Your task to perform on an android device: Check the news Image 0: 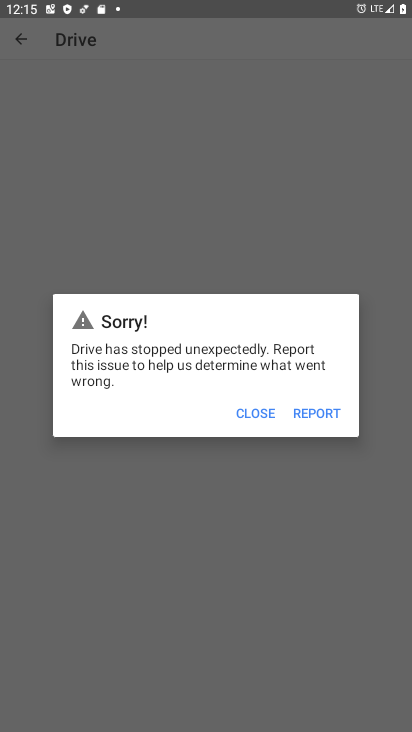
Step 0: press home button
Your task to perform on an android device: Check the news Image 1: 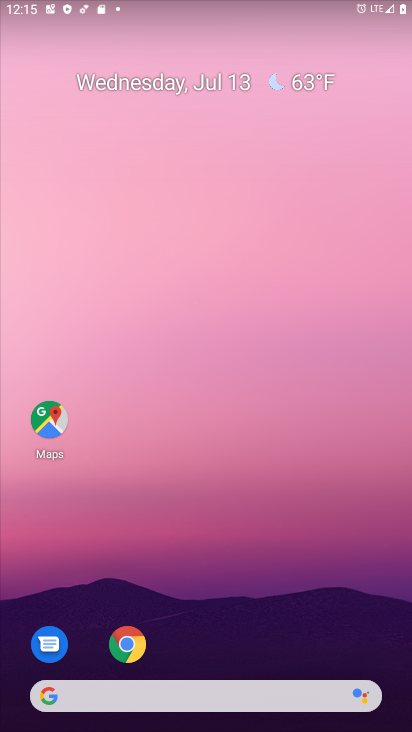
Step 1: drag from (178, 702) to (201, 227)
Your task to perform on an android device: Check the news Image 2: 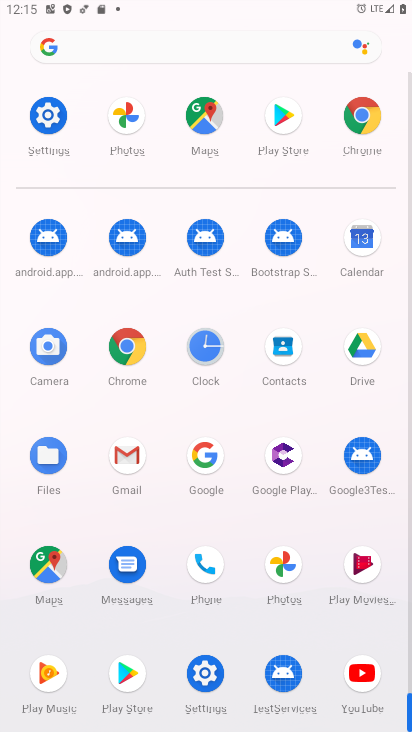
Step 2: click (203, 454)
Your task to perform on an android device: Check the news Image 3: 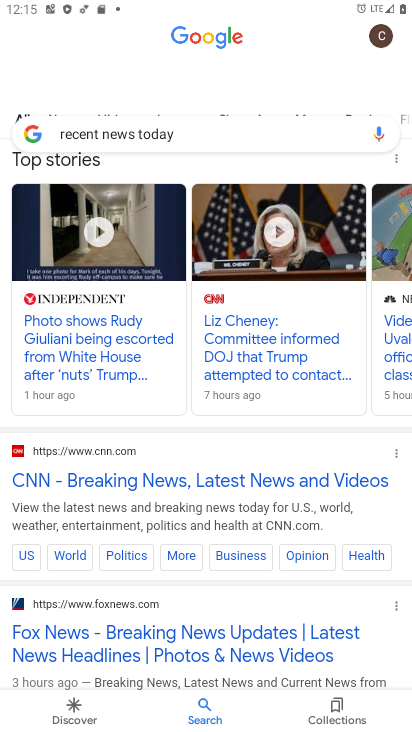
Step 3: click (284, 137)
Your task to perform on an android device: Check the news Image 4: 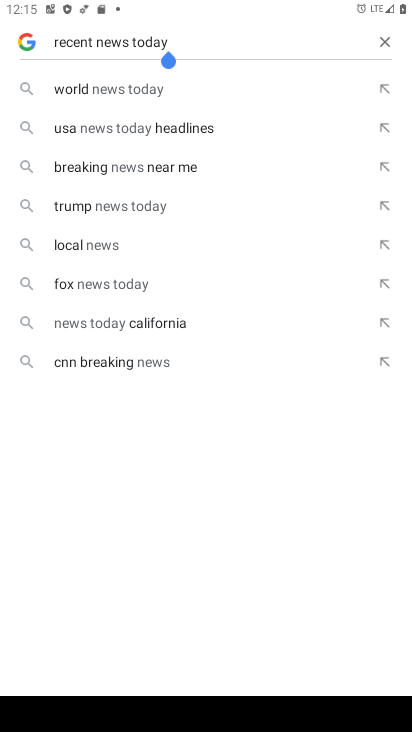
Step 4: click (389, 46)
Your task to perform on an android device: Check the news Image 5: 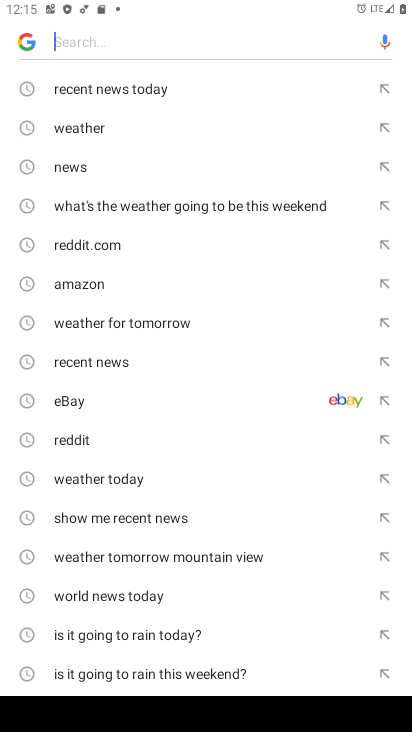
Step 5: type "news"
Your task to perform on an android device: Check the news Image 6: 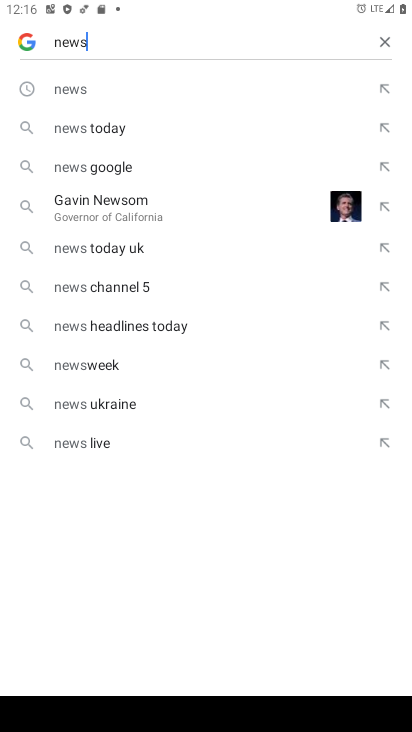
Step 6: click (86, 100)
Your task to perform on an android device: Check the news Image 7: 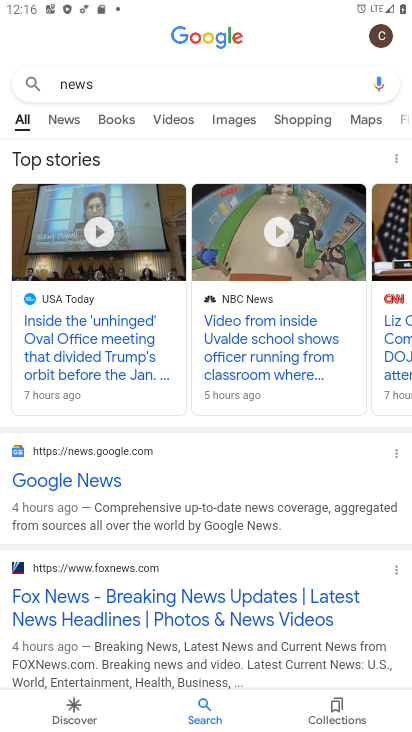
Step 7: click (117, 364)
Your task to perform on an android device: Check the news Image 8: 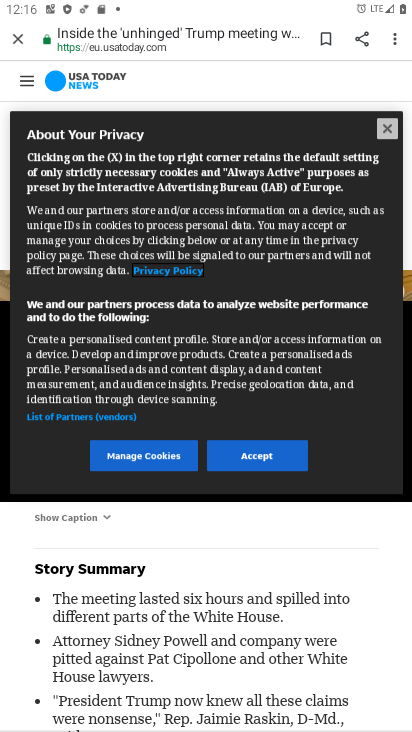
Step 8: click (262, 446)
Your task to perform on an android device: Check the news Image 9: 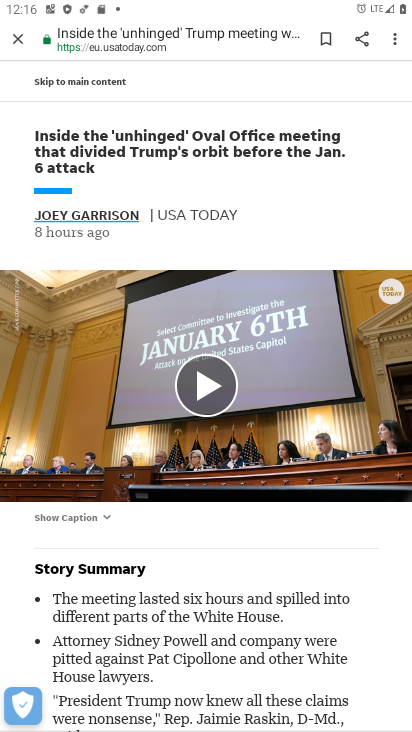
Step 9: task complete